Your task to perform on an android device: set the timer Image 0: 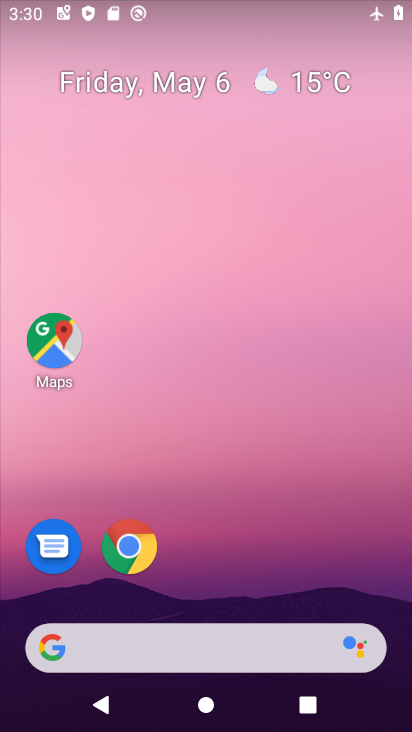
Step 0: drag from (309, 2) to (385, 127)
Your task to perform on an android device: set the timer Image 1: 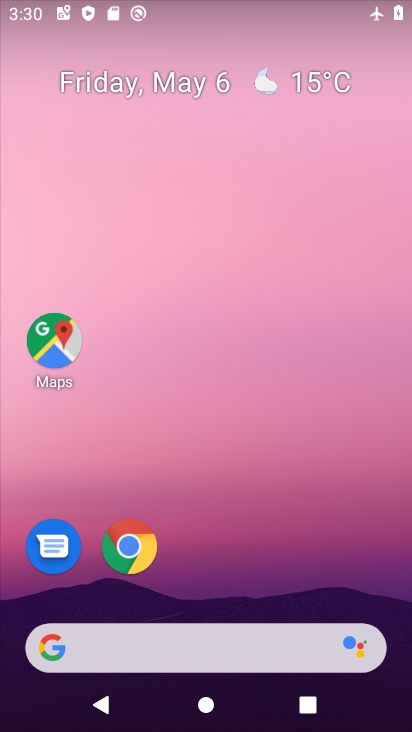
Step 1: drag from (309, 2) to (252, 504)
Your task to perform on an android device: set the timer Image 2: 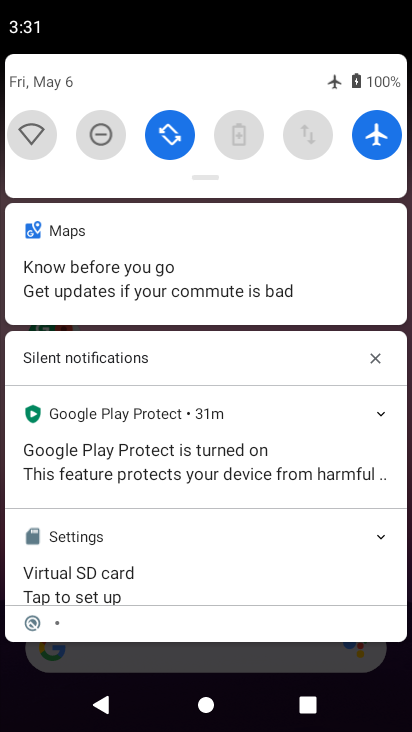
Step 2: click (372, 147)
Your task to perform on an android device: set the timer Image 3: 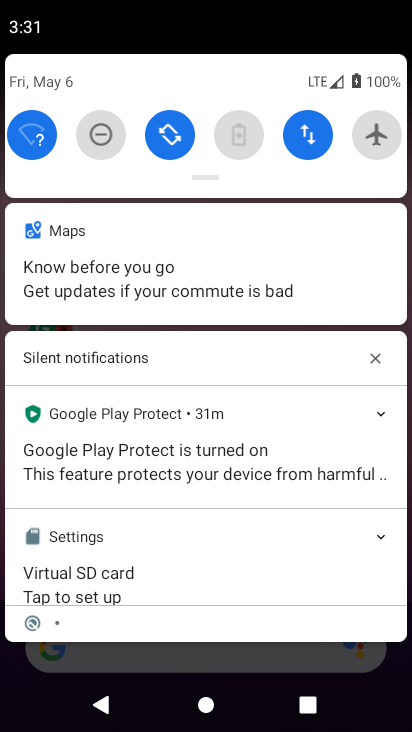
Step 3: click (390, 662)
Your task to perform on an android device: set the timer Image 4: 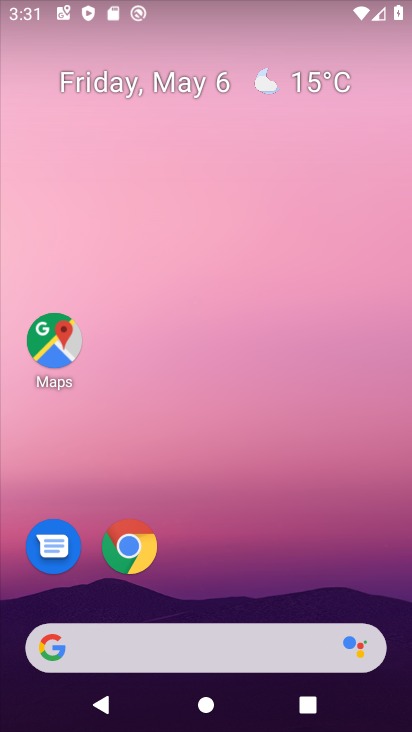
Step 4: drag from (243, 599) to (280, 160)
Your task to perform on an android device: set the timer Image 5: 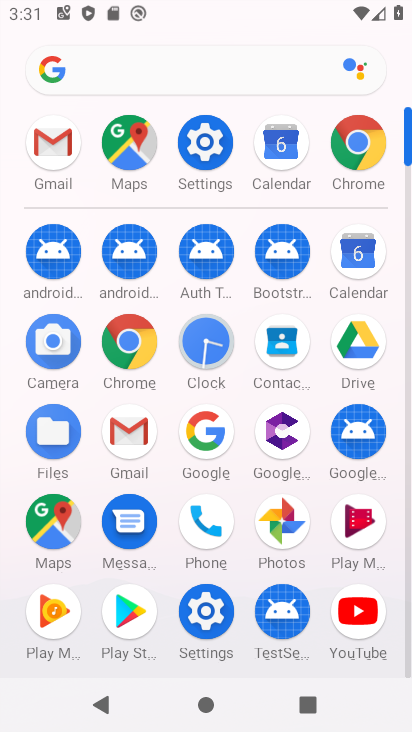
Step 5: click (211, 342)
Your task to perform on an android device: set the timer Image 6: 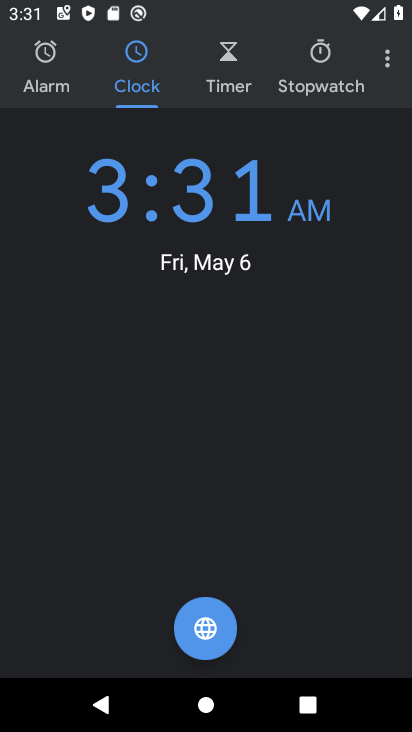
Step 6: click (41, 76)
Your task to perform on an android device: set the timer Image 7: 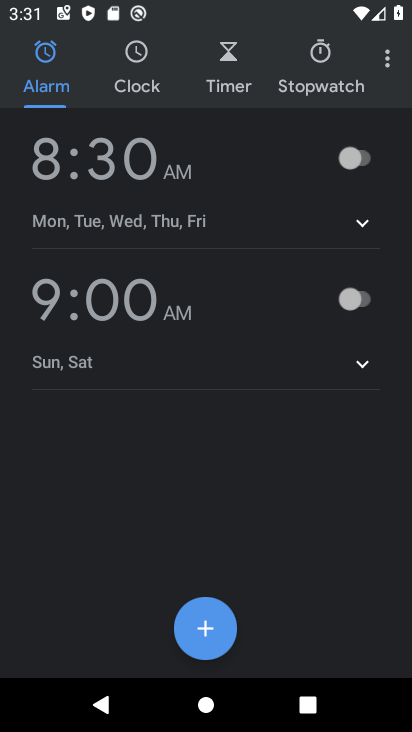
Step 7: click (231, 77)
Your task to perform on an android device: set the timer Image 8: 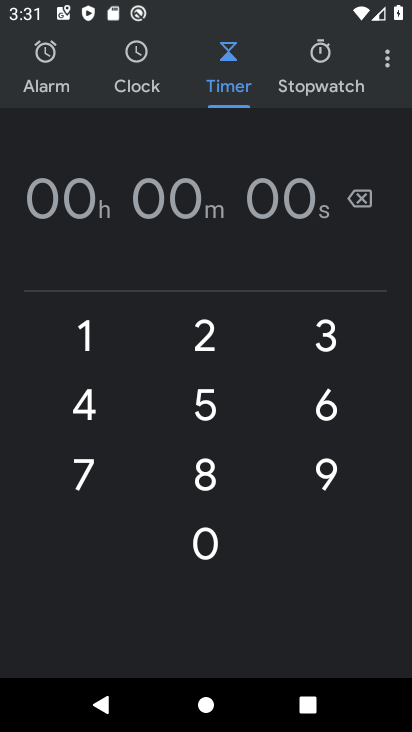
Step 8: type "100000"
Your task to perform on an android device: set the timer Image 9: 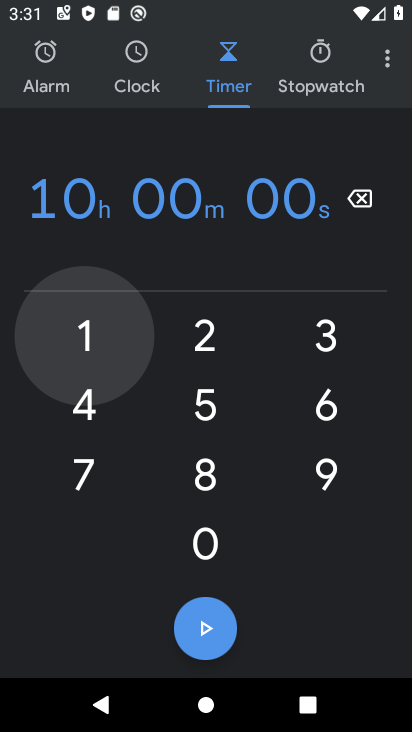
Step 9: click (208, 624)
Your task to perform on an android device: set the timer Image 10: 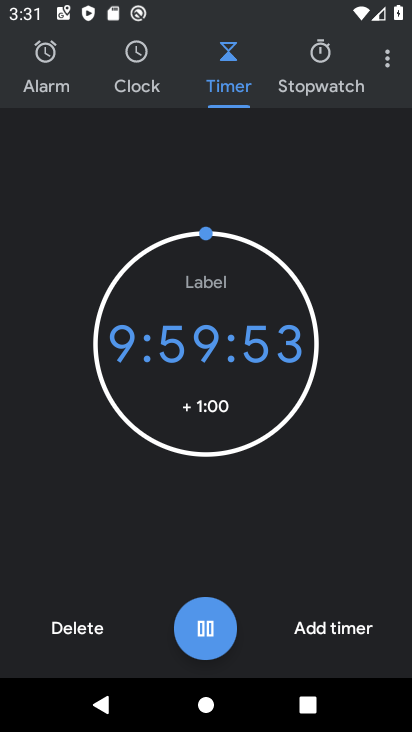
Step 10: task complete